Your task to perform on an android device: Open display settings Image 0: 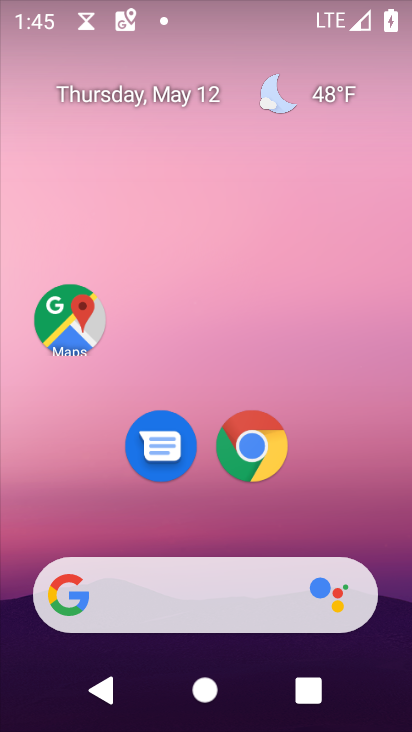
Step 0: click (253, 448)
Your task to perform on an android device: Open display settings Image 1: 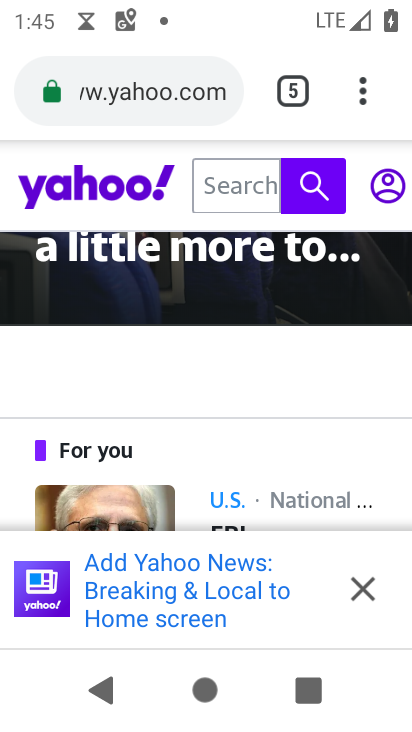
Step 1: click (298, 91)
Your task to perform on an android device: Open display settings Image 2: 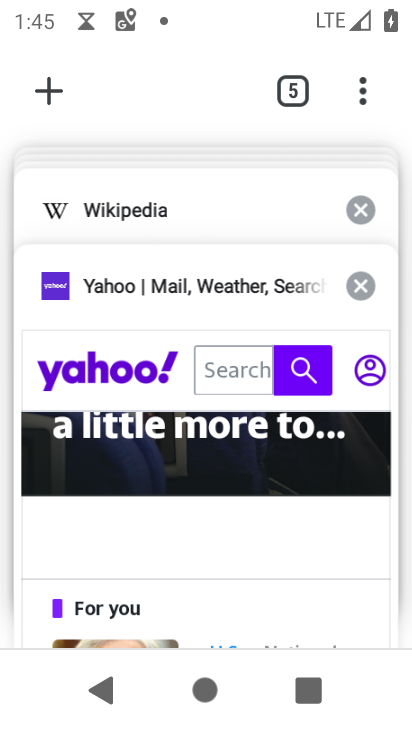
Step 2: click (49, 81)
Your task to perform on an android device: Open display settings Image 3: 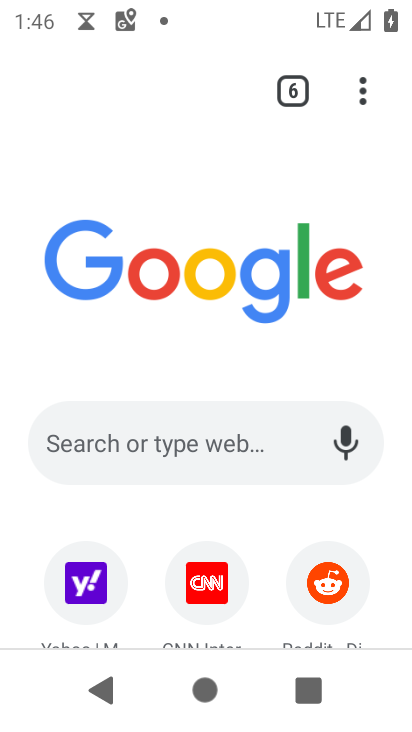
Step 3: drag from (260, 522) to (253, 402)
Your task to perform on an android device: Open display settings Image 4: 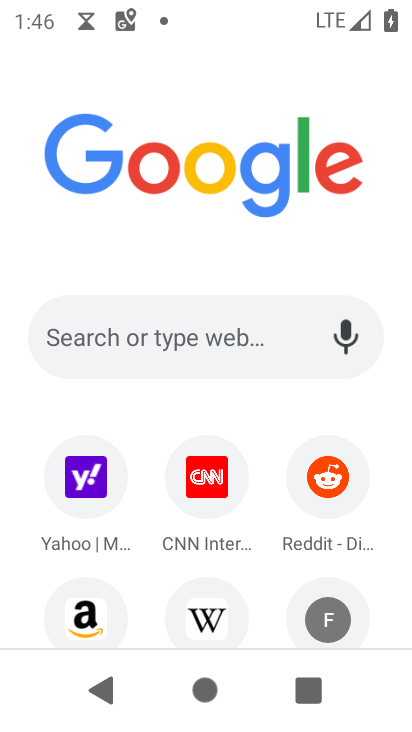
Step 4: click (229, 343)
Your task to perform on an android device: Open display settings Image 5: 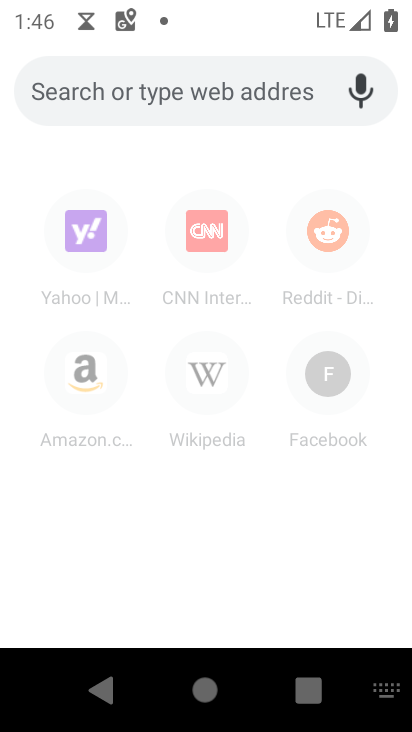
Step 5: press home button
Your task to perform on an android device: Open display settings Image 6: 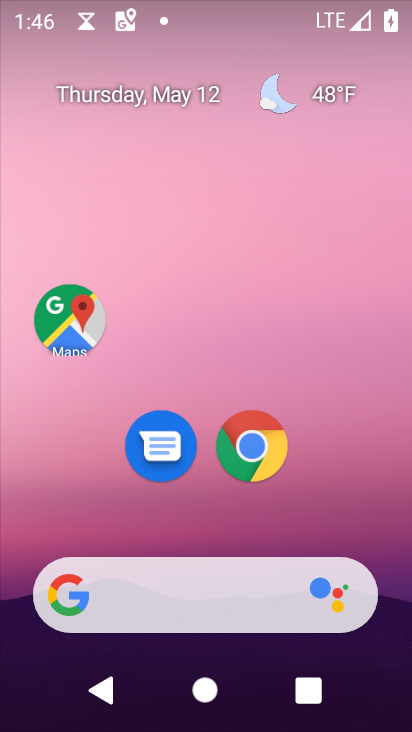
Step 6: drag from (329, 512) to (313, 19)
Your task to perform on an android device: Open display settings Image 7: 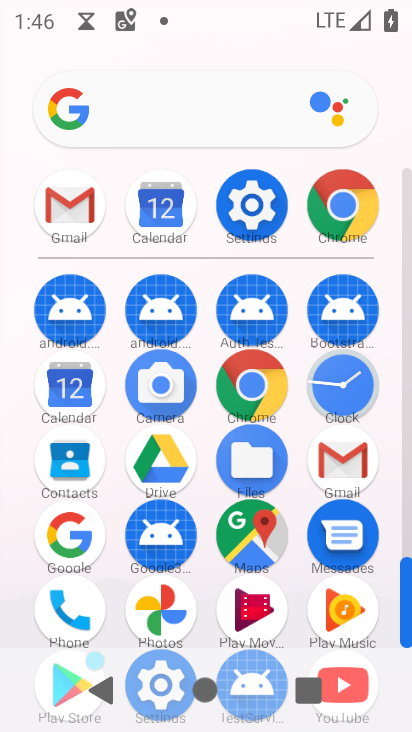
Step 7: click (252, 212)
Your task to perform on an android device: Open display settings Image 8: 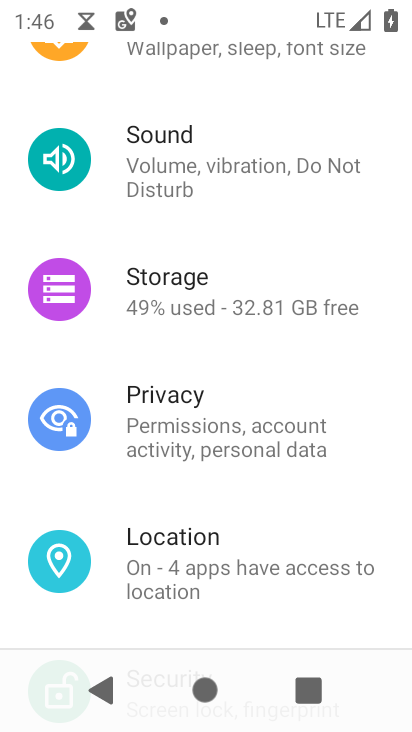
Step 8: drag from (265, 119) to (257, 473)
Your task to perform on an android device: Open display settings Image 9: 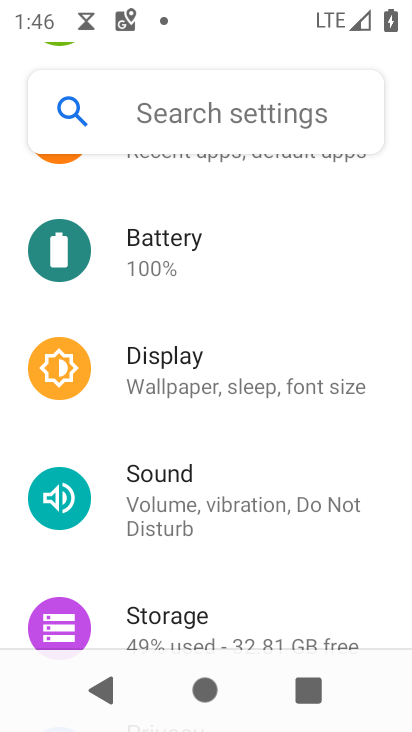
Step 9: click (226, 383)
Your task to perform on an android device: Open display settings Image 10: 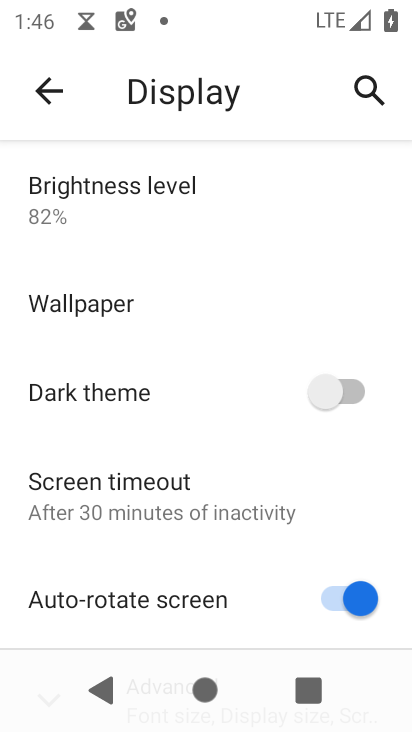
Step 10: task complete